Your task to perform on an android device: show emergency info Image 0: 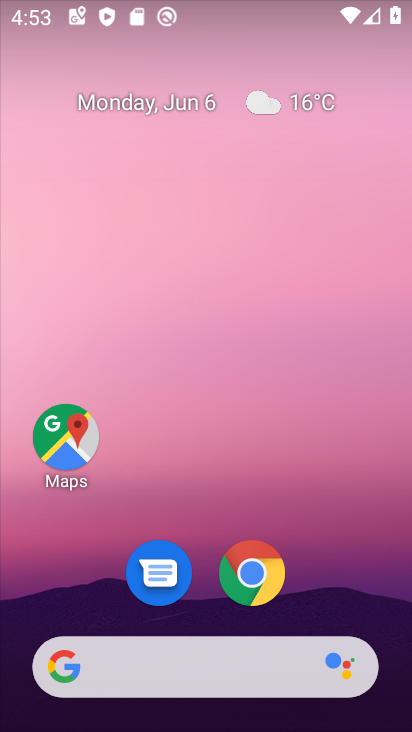
Step 0: drag from (351, 561) to (286, 77)
Your task to perform on an android device: show emergency info Image 1: 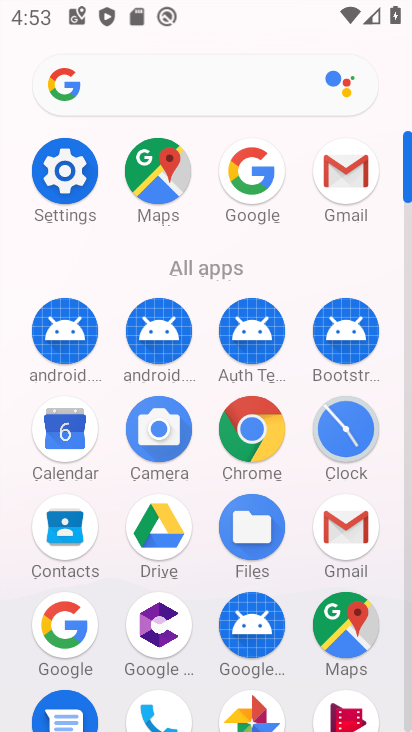
Step 1: click (63, 172)
Your task to perform on an android device: show emergency info Image 2: 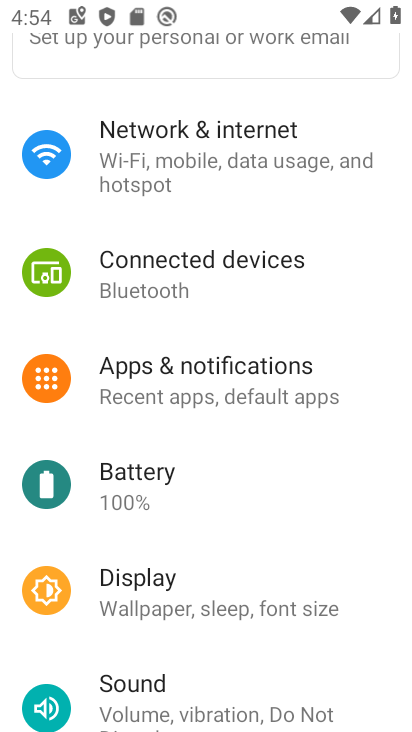
Step 2: drag from (276, 436) to (303, 326)
Your task to perform on an android device: show emergency info Image 3: 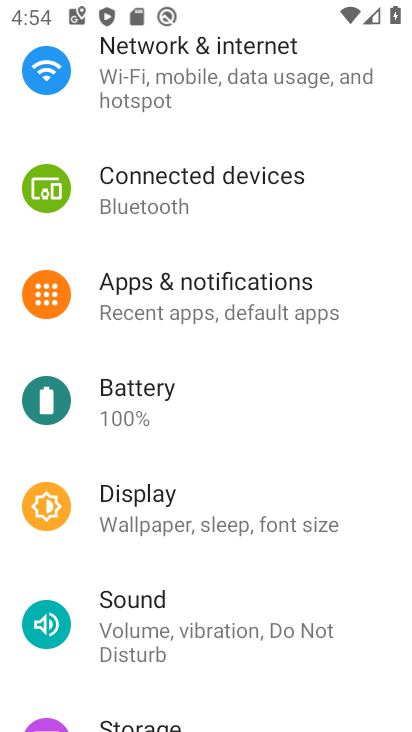
Step 3: drag from (253, 469) to (301, 301)
Your task to perform on an android device: show emergency info Image 4: 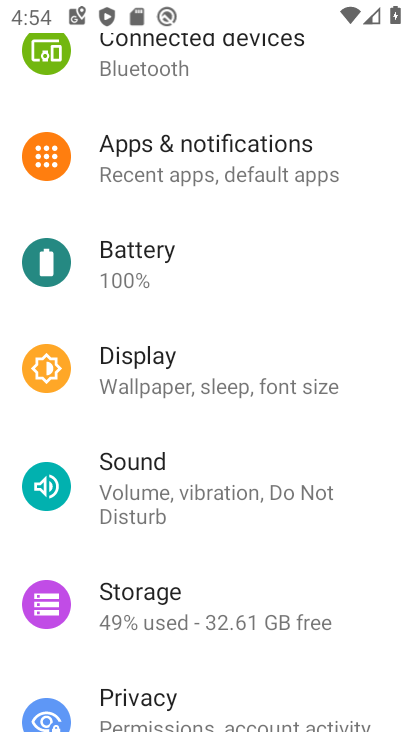
Step 4: drag from (207, 428) to (252, 285)
Your task to perform on an android device: show emergency info Image 5: 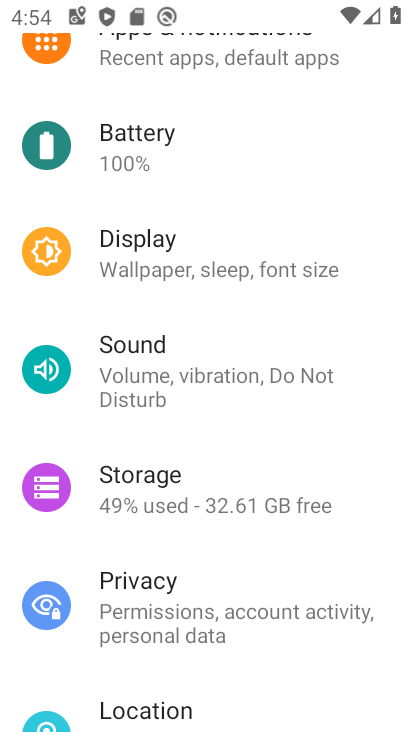
Step 5: drag from (228, 428) to (273, 303)
Your task to perform on an android device: show emergency info Image 6: 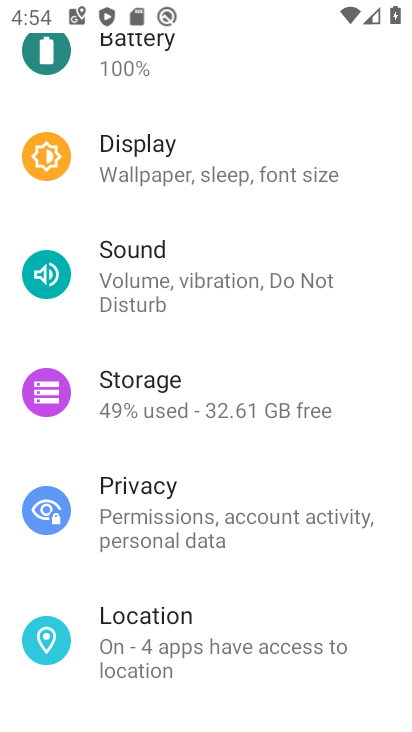
Step 6: drag from (245, 383) to (278, 233)
Your task to perform on an android device: show emergency info Image 7: 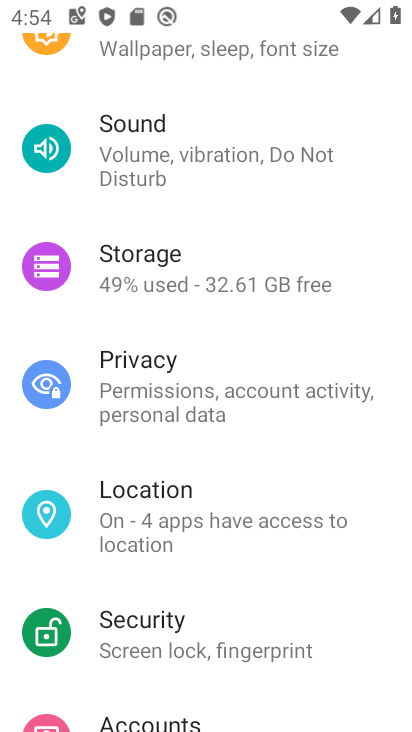
Step 7: drag from (242, 344) to (325, 225)
Your task to perform on an android device: show emergency info Image 8: 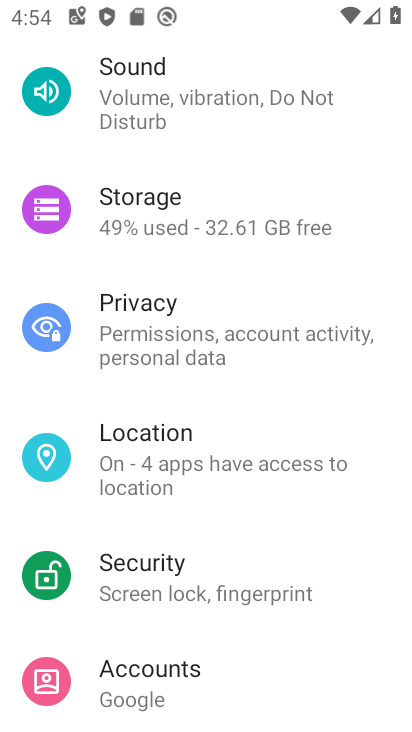
Step 8: drag from (220, 530) to (306, 379)
Your task to perform on an android device: show emergency info Image 9: 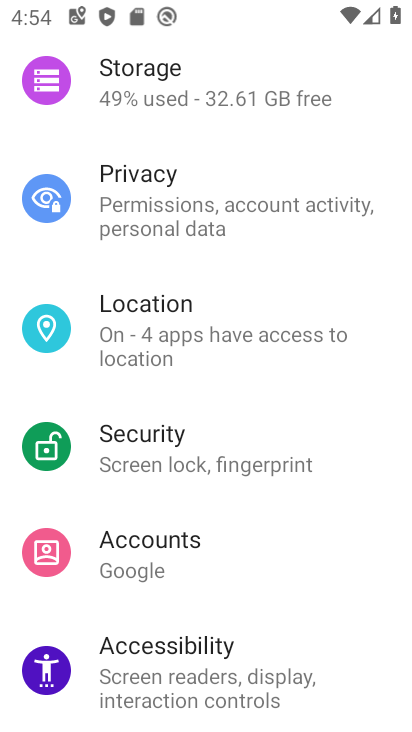
Step 9: drag from (212, 584) to (301, 444)
Your task to perform on an android device: show emergency info Image 10: 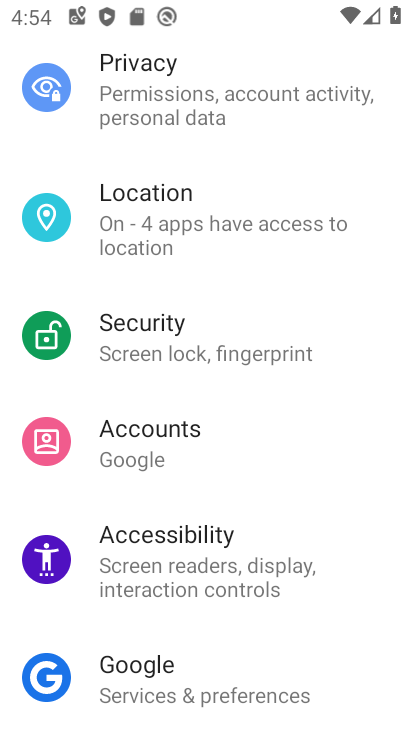
Step 10: drag from (207, 624) to (301, 473)
Your task to perform on an android device: show emergency info Image 11: 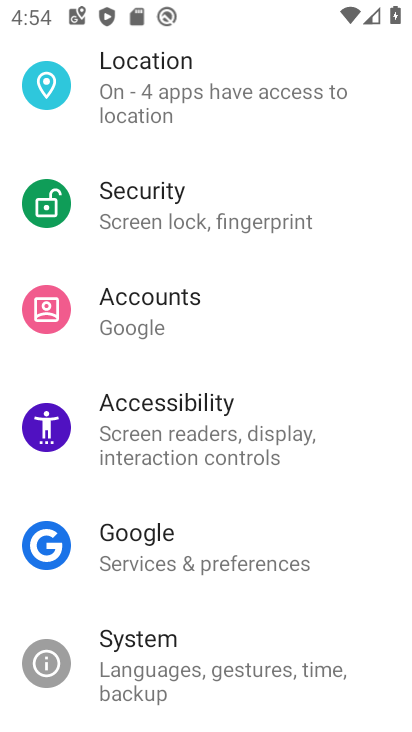
Step 11: drag from (194, 609) to (273, 496)
Your task to perform on an android device: show emergency info Image 12: 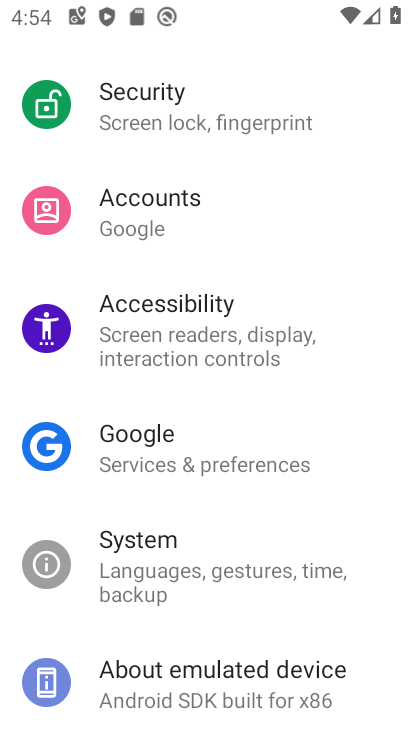
Step 12: click (211, 681)
Your task to perform on an android device: show emergency info Image 13: 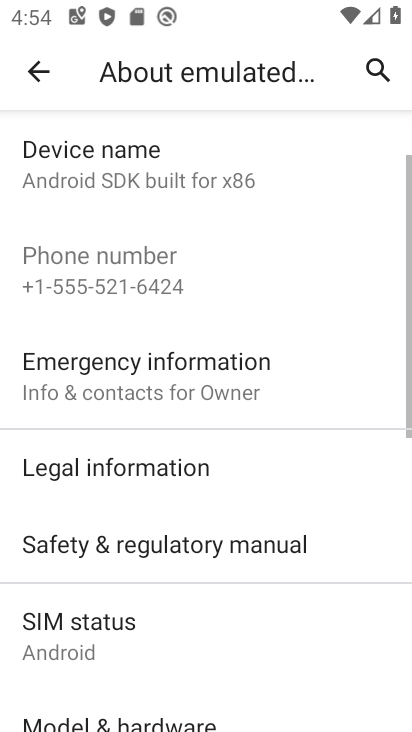
Step 13: click (211, 393)
Your task to perform on an android device: show emergency info Image 14: 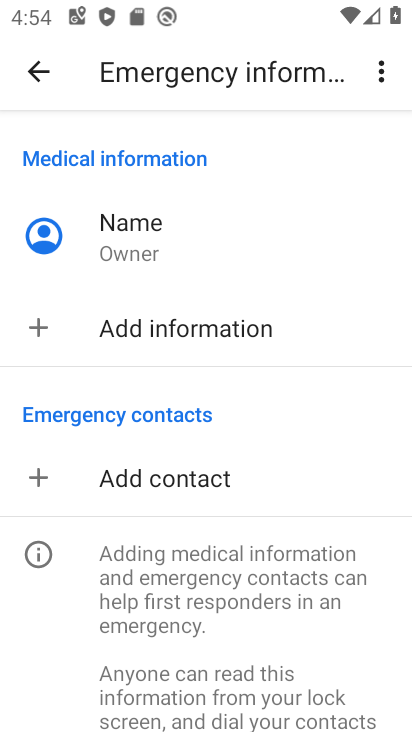
Step 14: task complete